Your task to perform on an android device: move a message to another label in the gmail app Image 0: 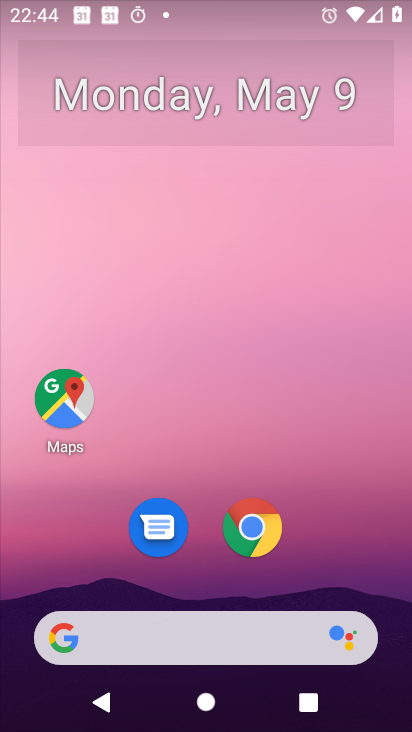
Step 0: drag from (209, 568) to (240, 5)
Your task to perform on an android device: move a message to another label in the gmail app Image 1: 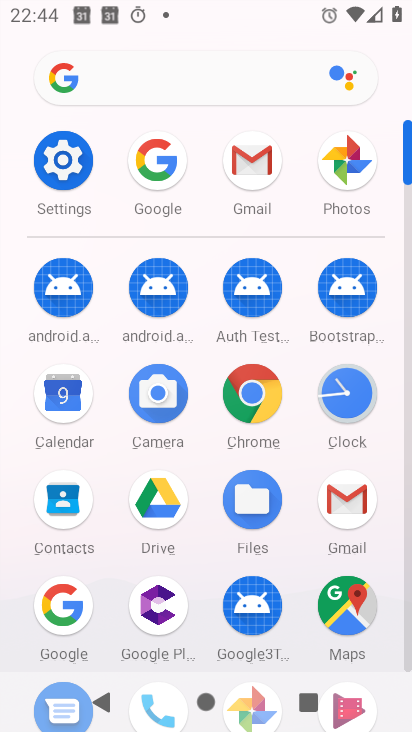
Step 1: click (255, 157)
Your task to perform on an android device: move a message to another label in the gmail app Image 2: 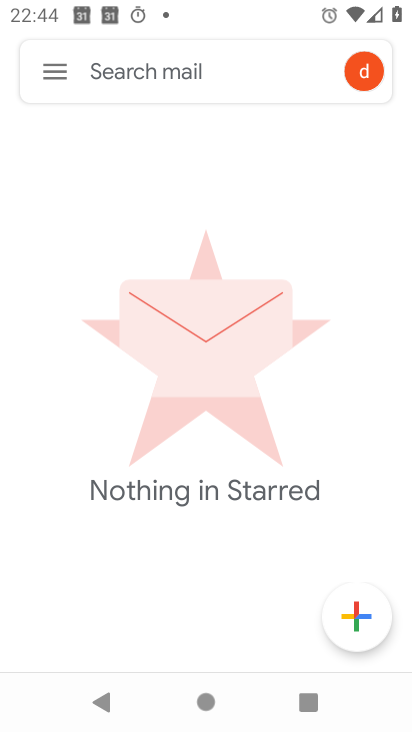
Step 2: click (59, 76)
Your task to perform on an android device: move a message to another label in the gmail app Image 3: 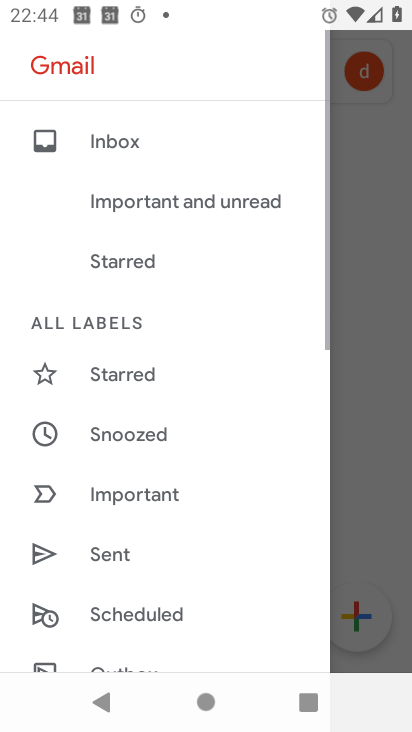
Step 3: drag from (180, 540) to (196, 58)
Your task to perform on an android device: move a message to another label in the gmail app Image 4: 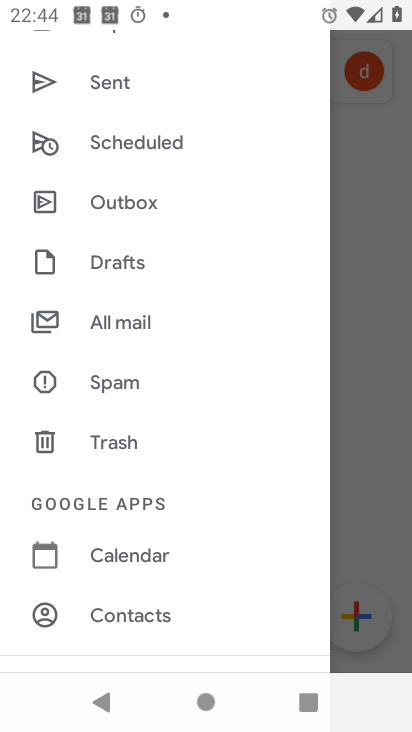
Step 4: click (129, 316)
Your task to perform on an android device: move a message to another label in the gmail app Image 5: 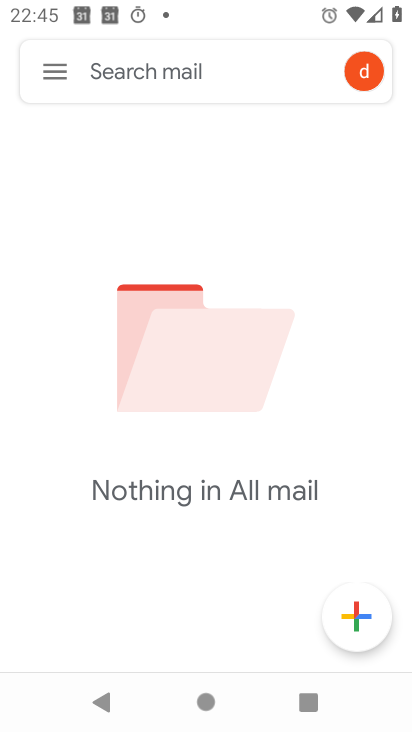
Step 5: task complete